Your task to perform on an android device: Open Google Maps Image 0: 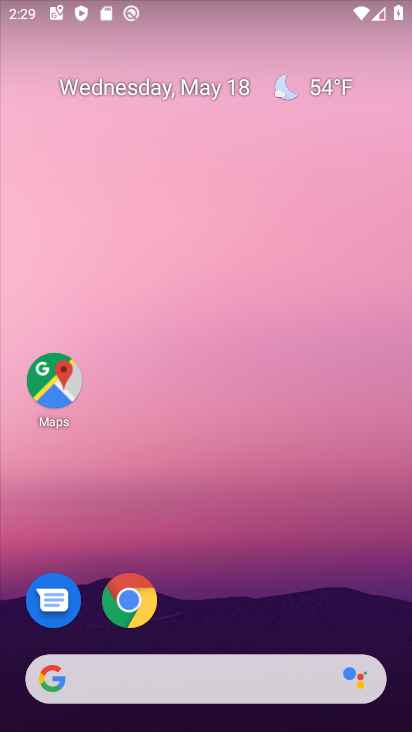
Step 0: click (156, 78)
Your task to perform on an android device: Open Google Maps Image 1: 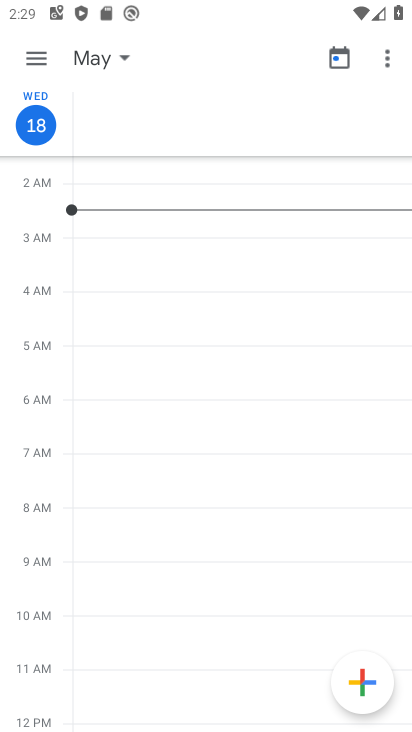
Step 1: press home button
Your task to perform on an android device: Open Google Maps Image 2: 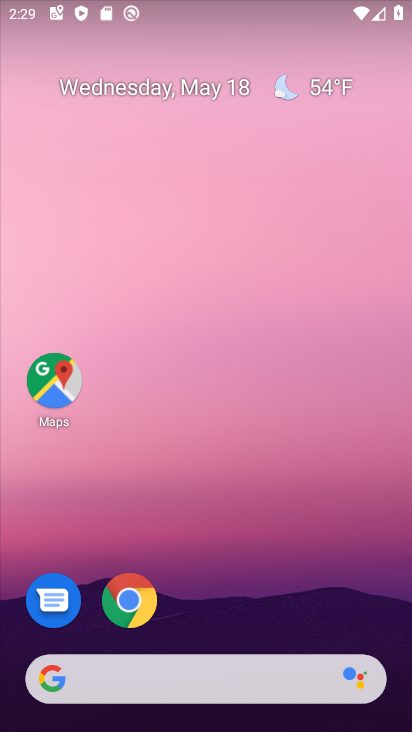
Step 2: click (72, 375)
Your task to perform on an android device: Open Google Maps Image 3: 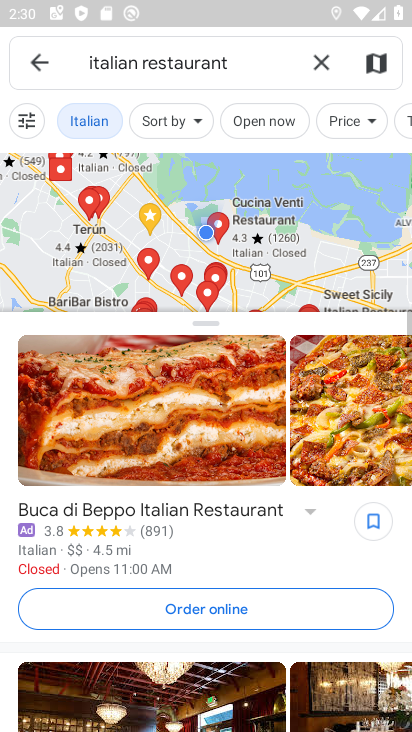
Step 3: task complete